Your task to perform on an android device: Open calendar and show me the third week of next month Image 0: 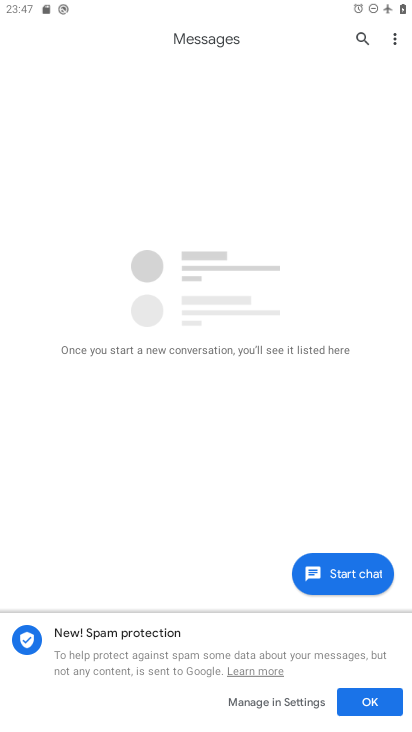
Step 0: press home button
Your task to perform on an android device: Open calendar and show me the third week of next month Image 1: 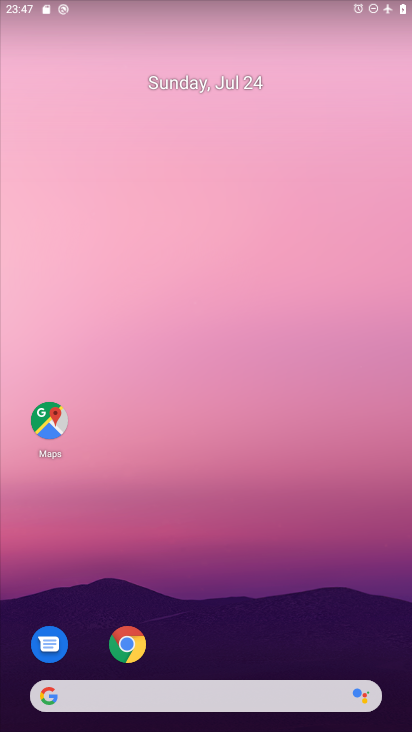
Step 1: drag from (378, 642) to (327, 96)
Your task to perform on an android device: Open calendar and show me the third week of next month Image 2: 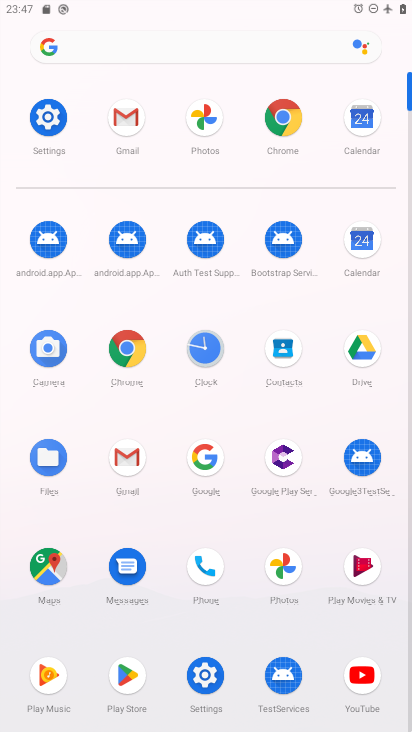
Step 2: click (363, 238)
Your task to perform on an android device: Open calendar and show me the third week of next month Image 3: 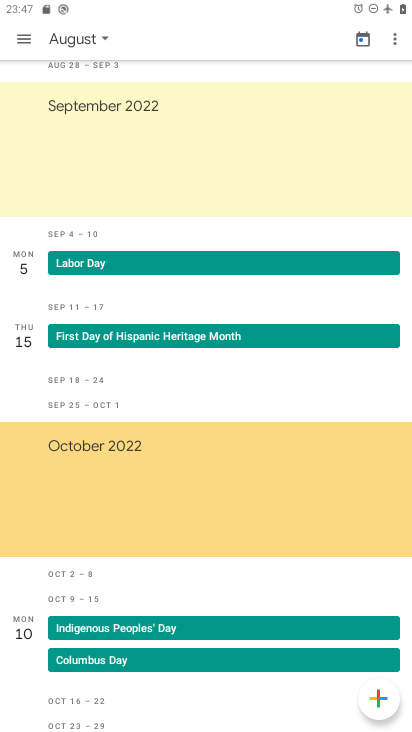
Step 3: click (25, 39)
Your task to perform on an android device: Open calendar and show me the third week of next month Image 4: 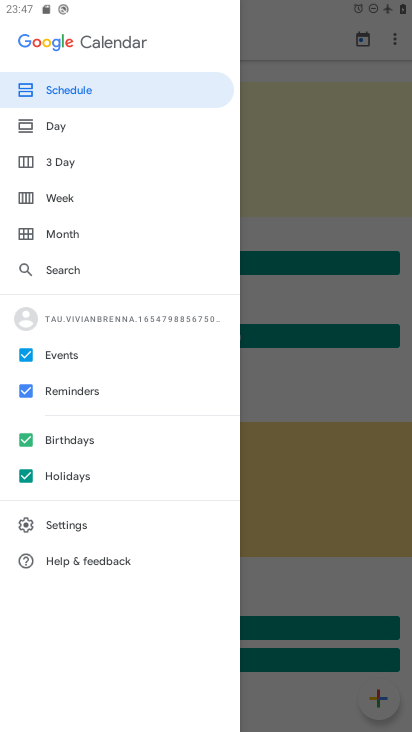
Step 4: click (62, 193)
Your task to perform on an android device: Open calendar and show me the third week of next month Image 5: 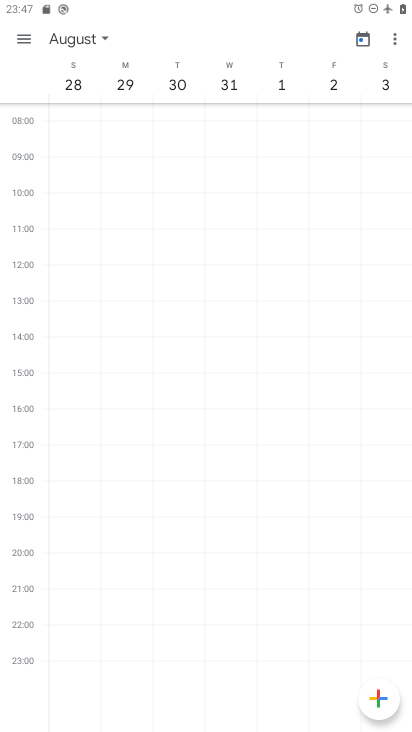
Step 5: click (107, 39)
Your task to perform on an android device: Open calendar and show me the third week of next month Image 6: 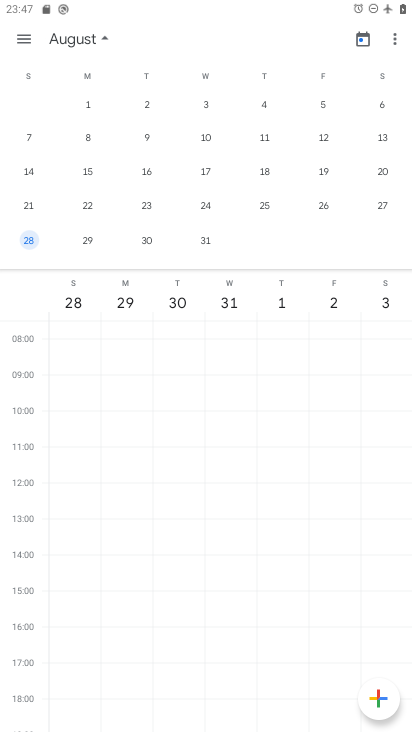
Step 6: click (25, 200)
Your task to perform on an android device: Open calendar and show me the third week of next month Image 7: 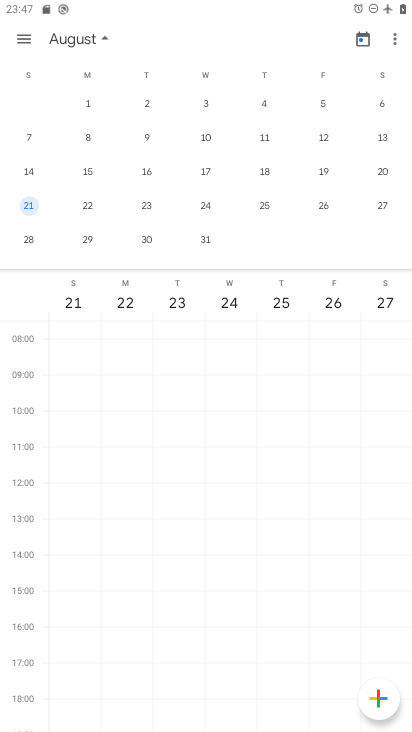
Step 7: task complete